Your task to perform on an android device: Go to Wikipedia Image 0: 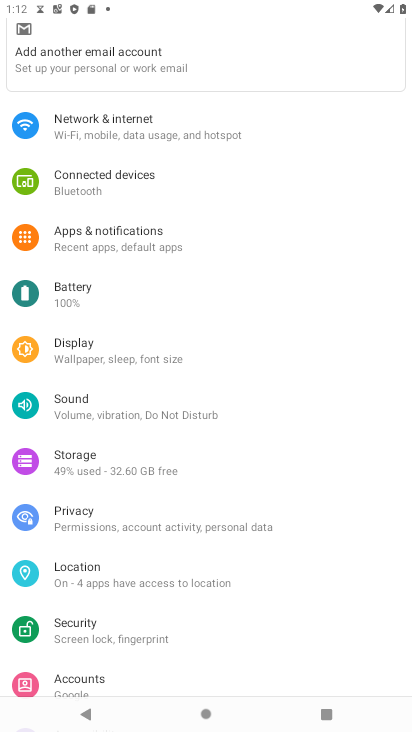
Step 0: press home button
Your task to perform on an android device: Go to Wikipedia Image 1: 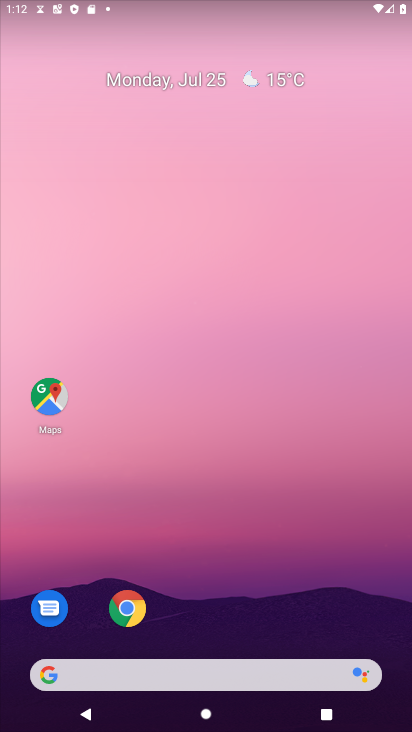
Step 1: drag from (255, 415) to (257, 81)
Your task to perform on an android device: Go to Wikipedia Image 2: 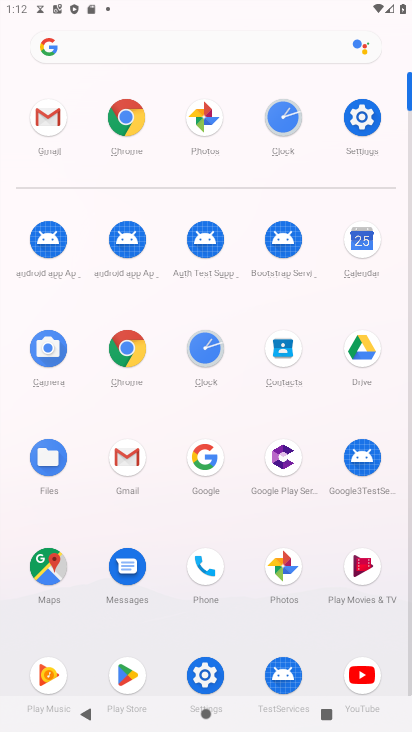
Step 2: click (139, 348)
Your task to perform on an android device: Go to Wikipedia Image 3: 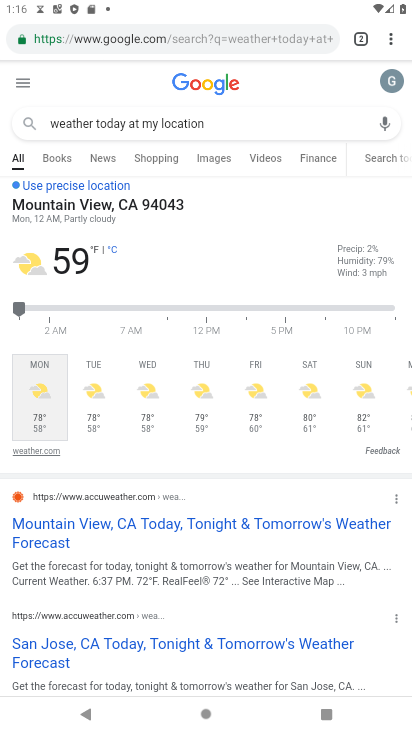
Step 3: press home button
Your task to perform on an android device: Go to Wikipedia Image 4: 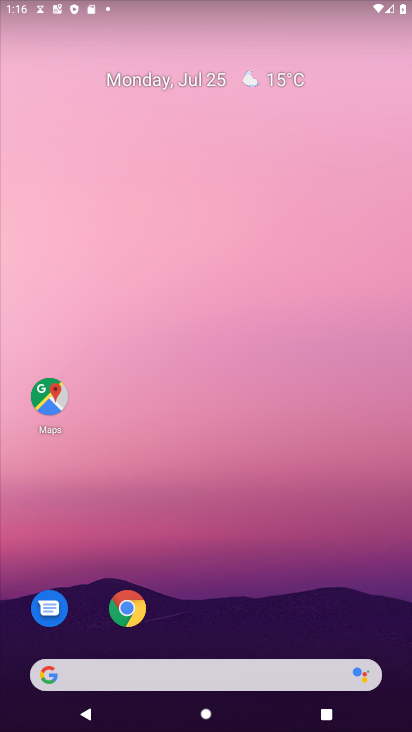
Step 4: click (142, 620)
Your task to perform on an android device: Go to Wikipedia Image 5: 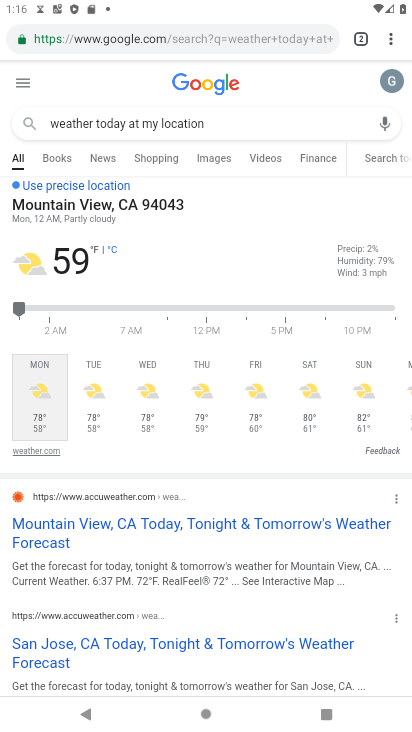
Step 5: drag from (144, 93) to (137, 477)
Your task to perform on an android device: Go to Wikipedia Image 6: 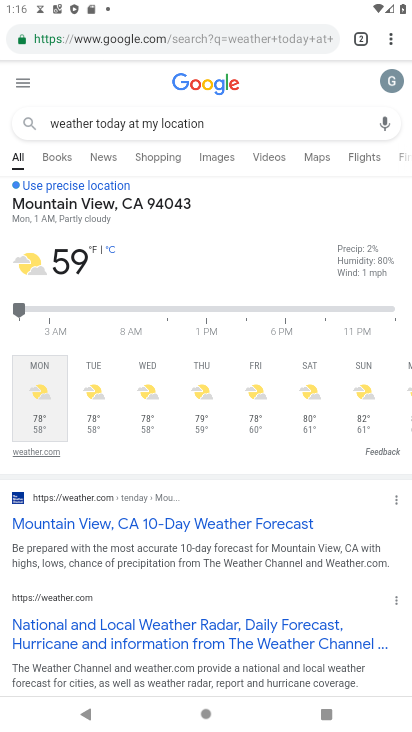
Step 6: press back button
Your task to perform on an android device: Go to Wikipedia Image 7: 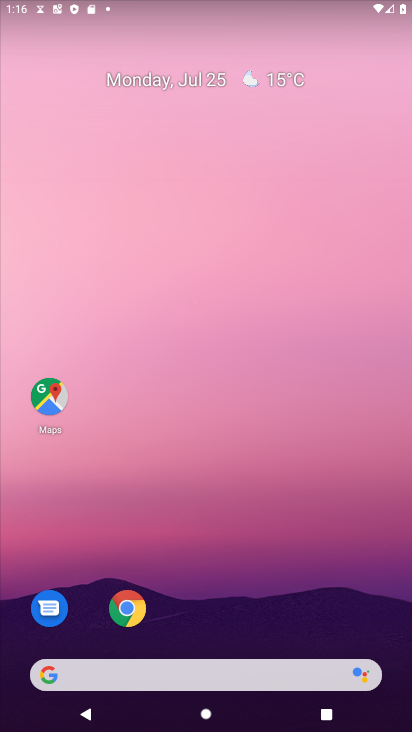
Step 7: drag from (8, 687) to (286, 52)
Your task to perform on an android device: Go to Wikipedia Image 8: 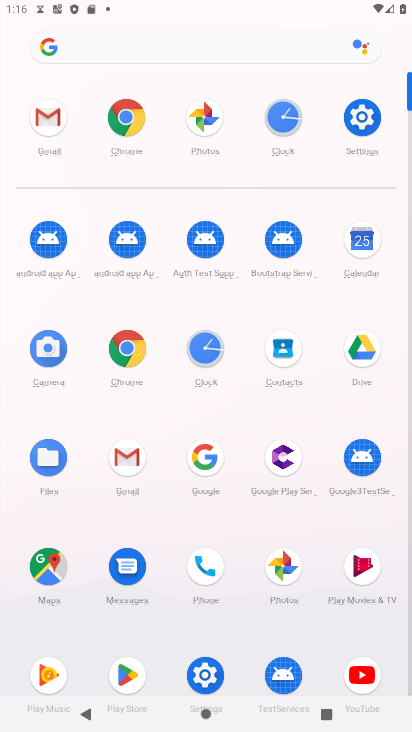
Step 8: click (115, 107)
Your task to perform on an android device: Go to Wikipedia Image 9: 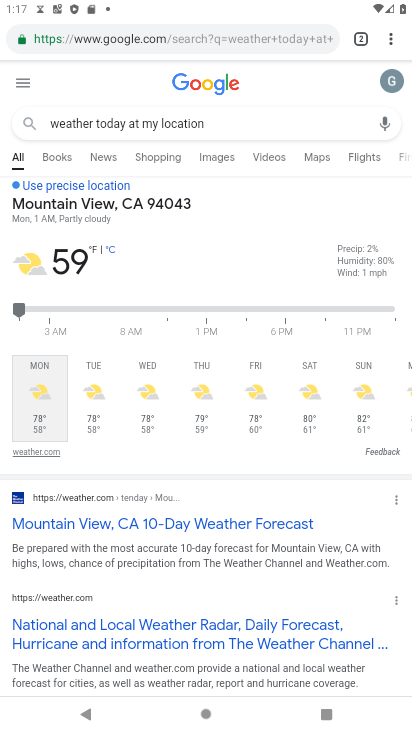
Step 9: press back button
Your task to perform on an android device: Go to Wikipedia Image 10: 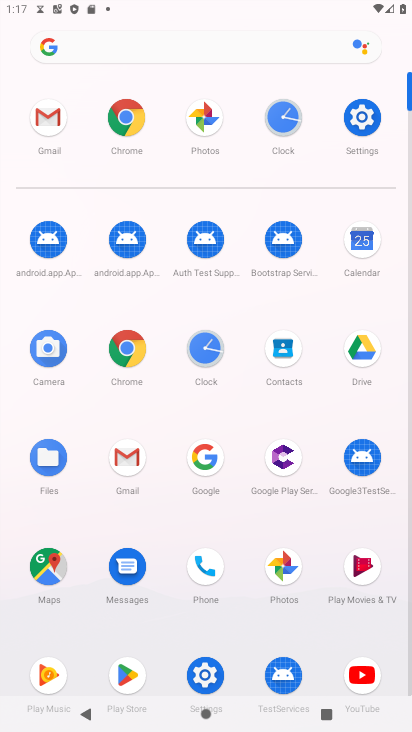
Step 10: click (132, 134)
Your task to perform on an android device: Go to Wikipedia Image 11: 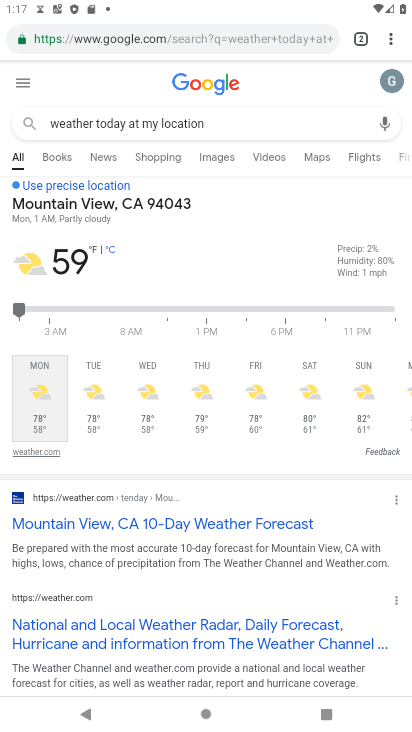
Step 11: click (361, 30)
Your task to perform on an android device: Go to Wikipedia Image 12: 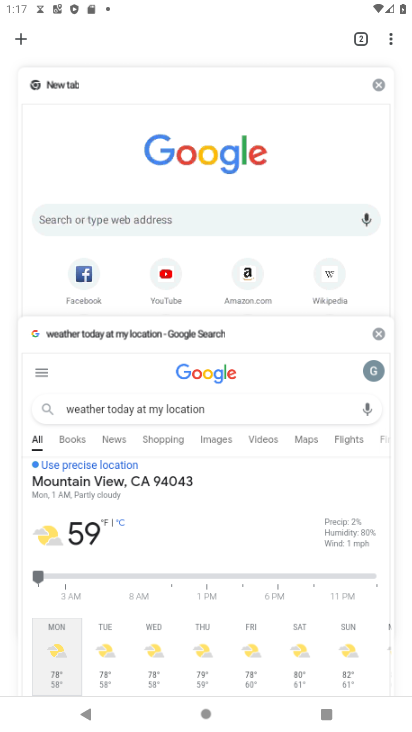
Step 12: click (376, 82)
Your task to perform on an android device: Go to Wikipedia Image 13: 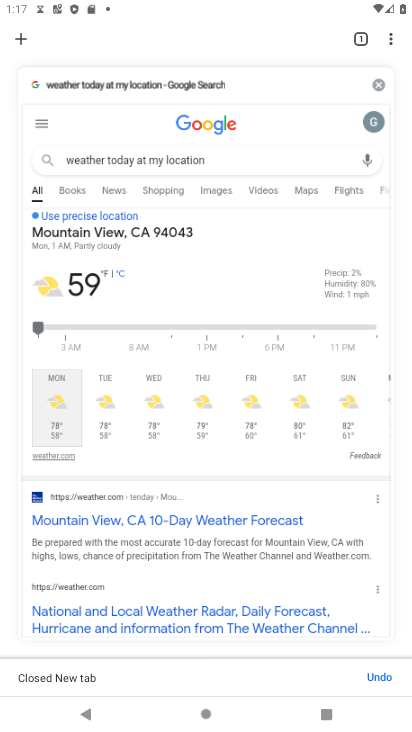
Step 13: click (376, 80)
Your task to perform on an android device: Go to Wikipedia Image 14: 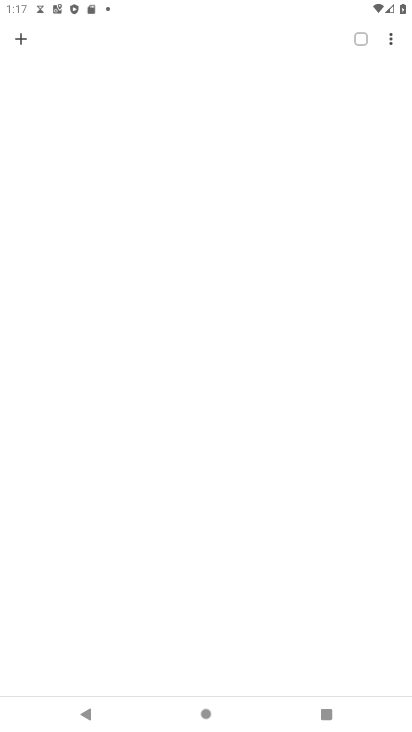
Step 14: click (11, 40)
Your task to perform on an android device: Go to Wikipedia Image 15: 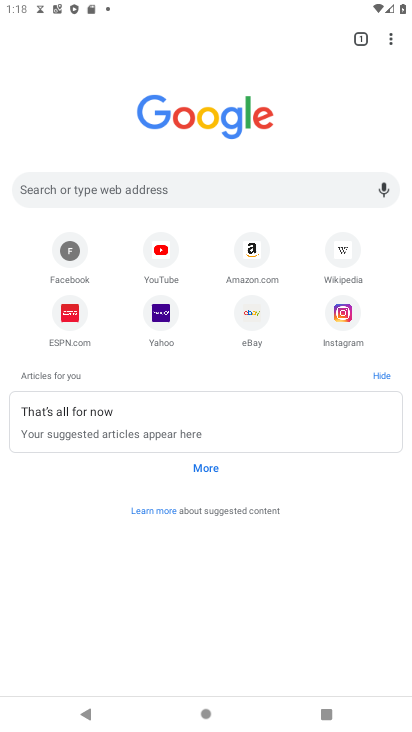
Step 15: click (341, 252)
Your task to perform on an android device: Go to Wikipedia Image 16: 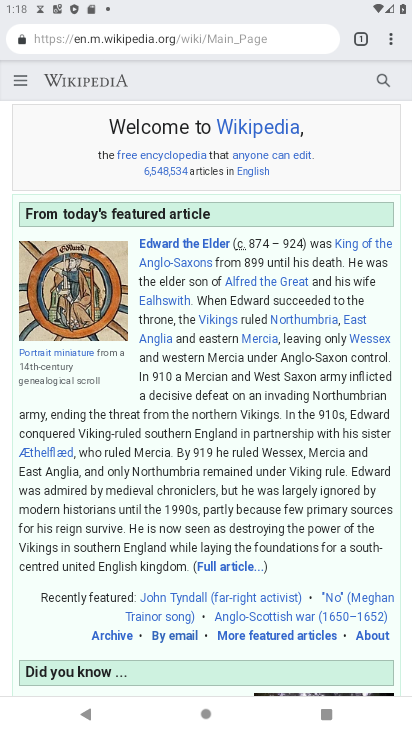
Step 16: task complete